Your task to perform on an android device: Open battery settings Image 0: 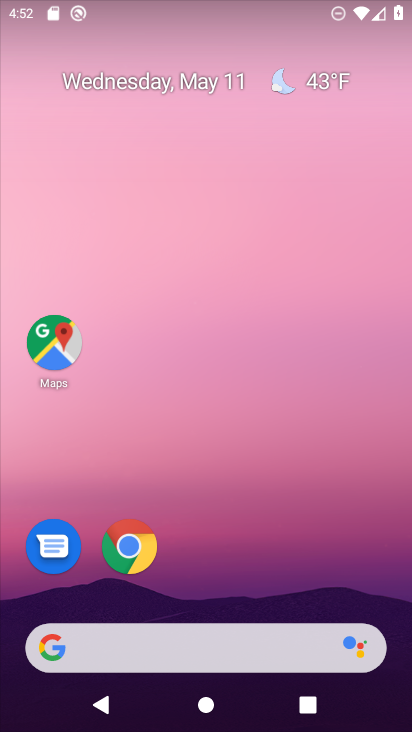
Step 0: drag from (191, 617) to (187, 251)
Your task to perform on an android device: Open battery settings Image 1: 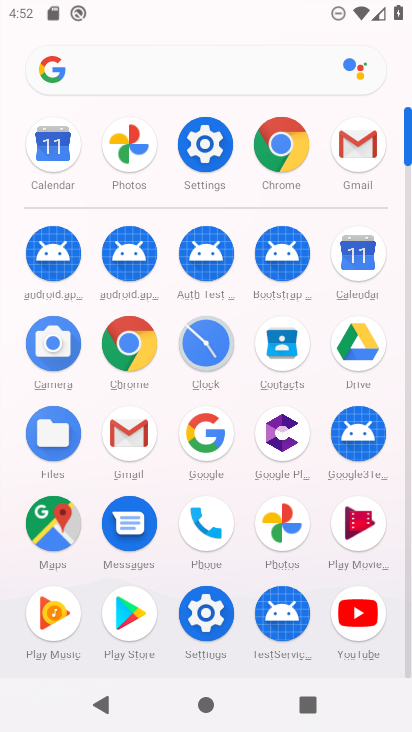
Step 1: click (185, 144)
Your task to perform on an android device: Open battery settings Image 2: 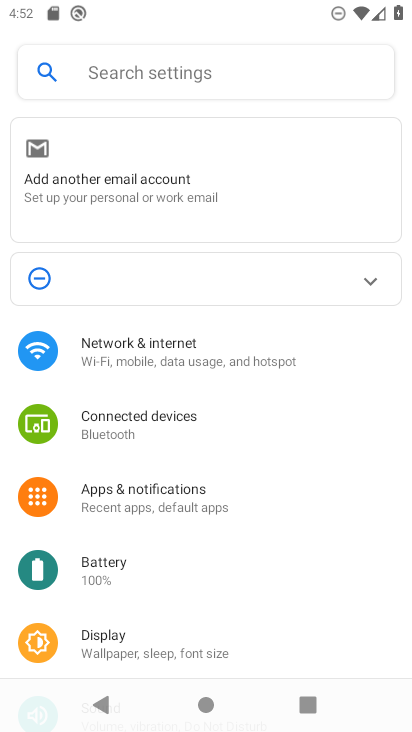
Step 2: click (119, 572)
Your task to perform on an android device: Open battery settings Image 3: 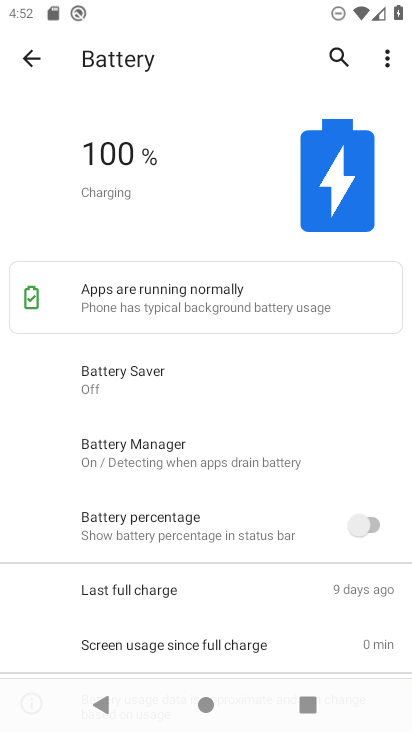
Step 3: click (384, 53)
Your task to perform on an android device: Open battery settings Image 4: 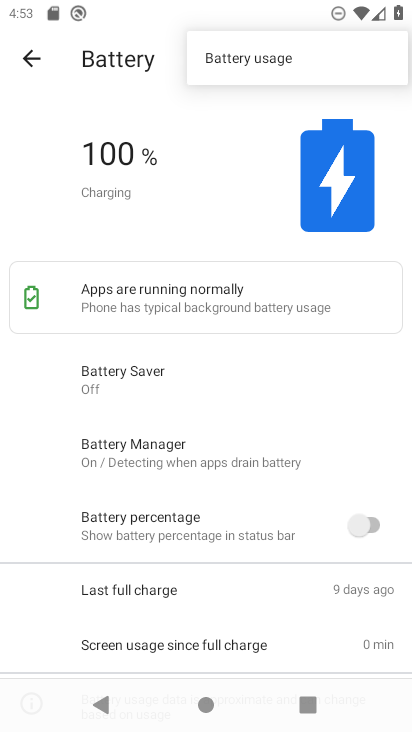
Step 4: click (214, 62)
Your task to perform on an android device: Open battery settings Image 5: 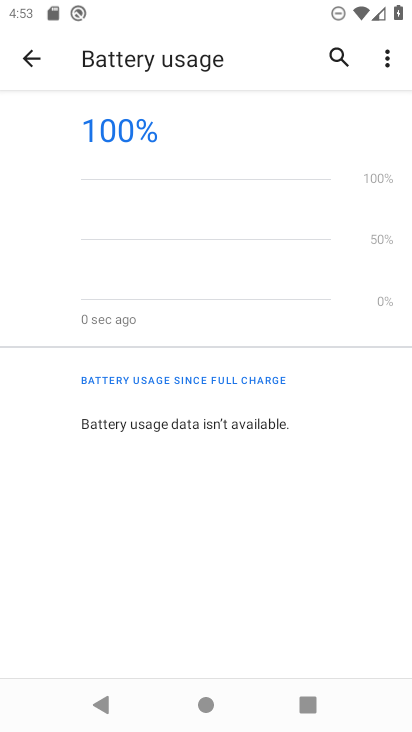
Step 5: task complete